Your task to perform on an android device: see sites visited before in the chrome app Image 0: 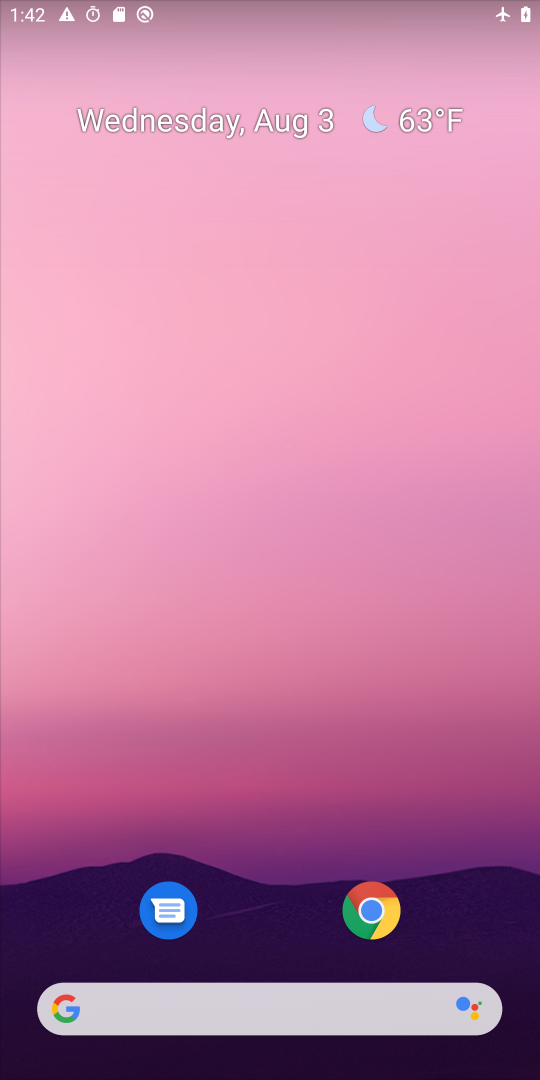
Step 0: drag from (303, 355) to (284, 126)
Your task to perform on an android device: see sites visited before in the chrome app Image 1: 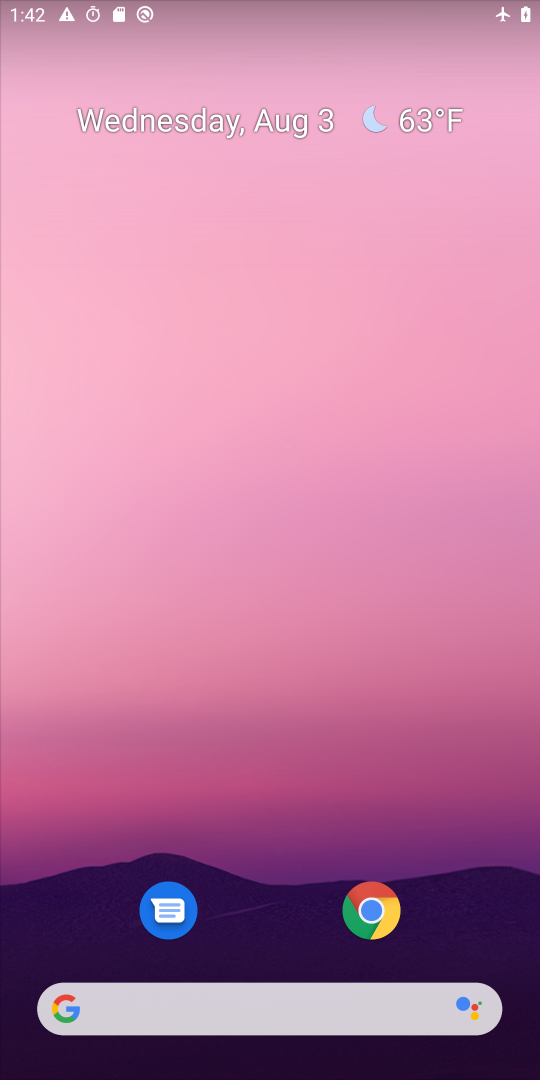
Step 1: drag from (329, 1006) to (310, 14)
Your task to perform on an android device: see sites visited before in the chrome app Image 2: 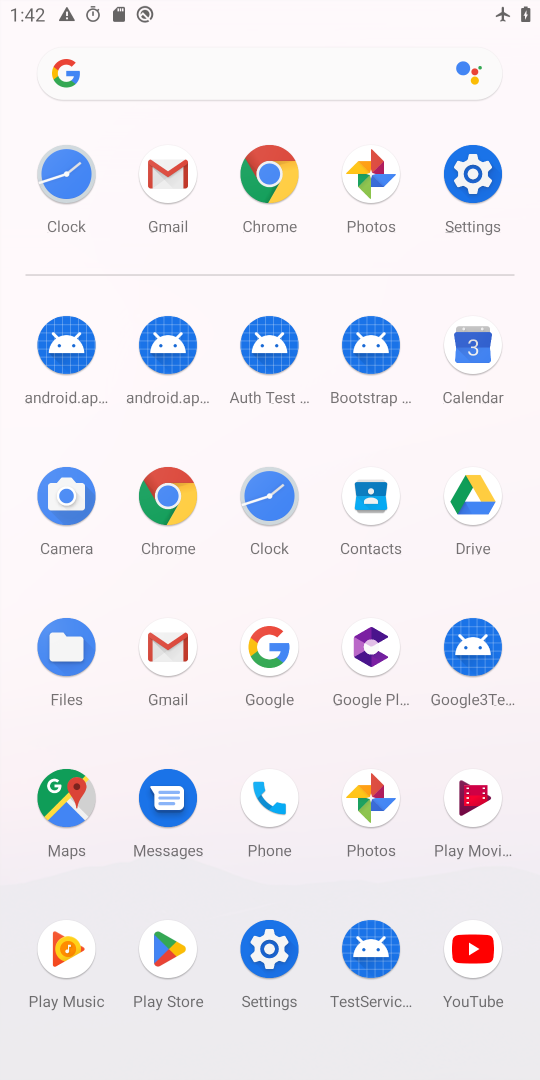
Step 2: click (189, 497)
Your task to perform on an android device: see sites visited before in the chrome app Image 3: 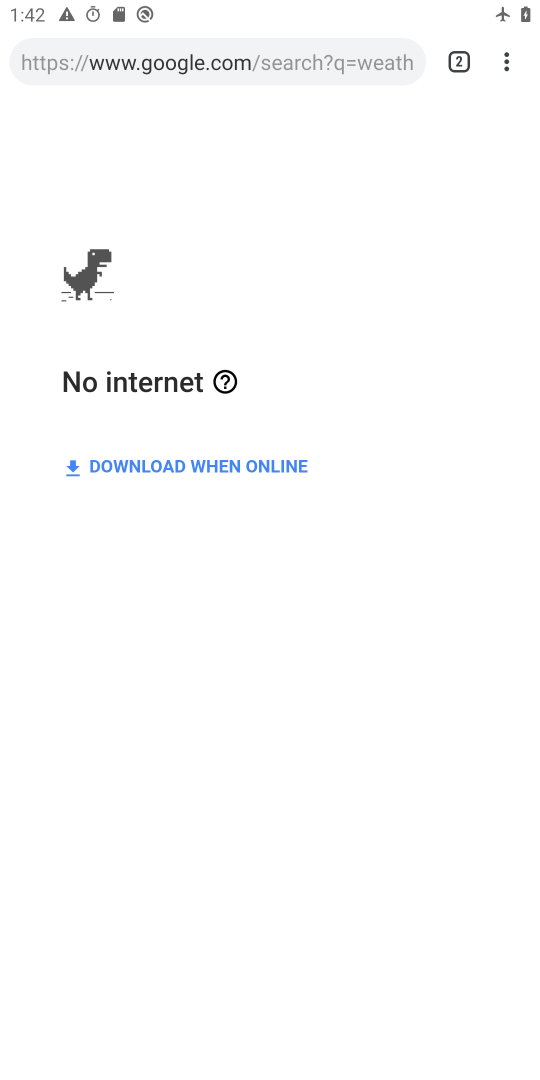
Step 3: task complete